Your task to perform on an android device: Do I have any events this weekend? Image 0: 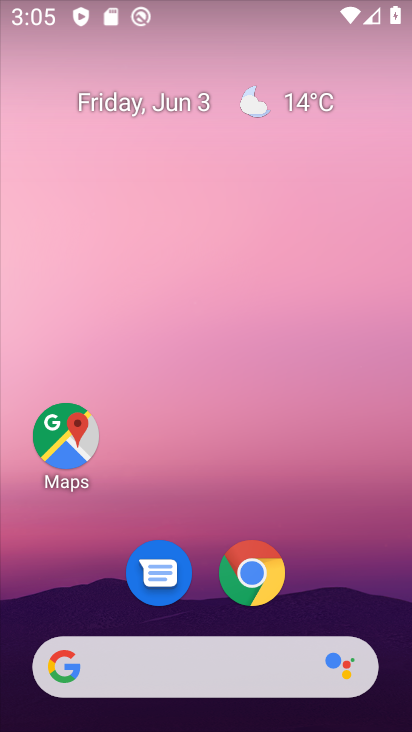
Step 0: drag from (249, 673) to (268, 26)
Your task to perform on an android device: Do I have any events this weekend? Image 1: 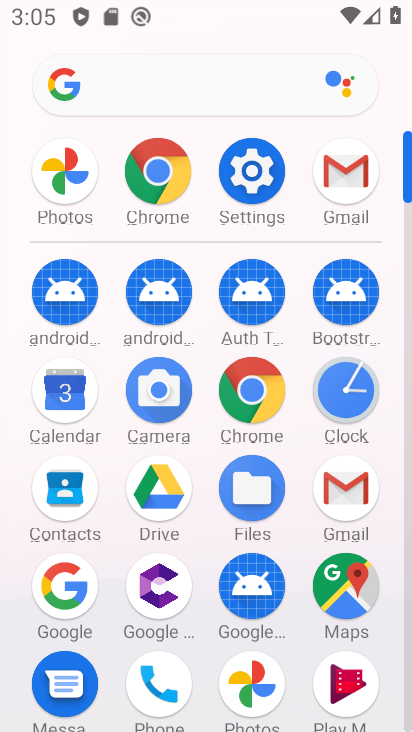
Step 1: click (71, 396)
Your task to perform on an android device: Do I have any events this weekend? Image 2: 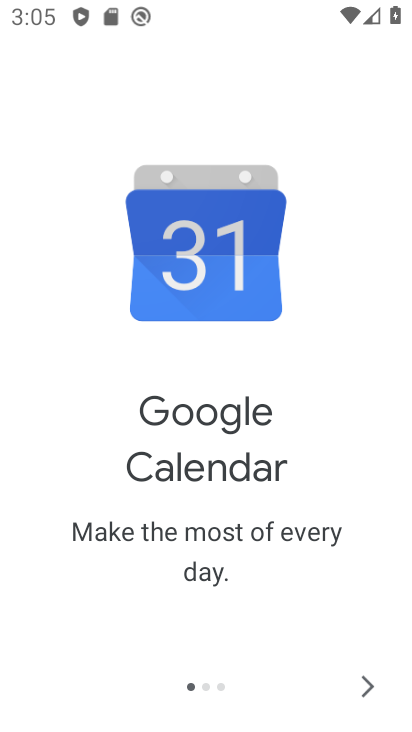
Step 2: click (360, 681)
Your task to perform on an android device: Do I have any events this weekend? Image 3: 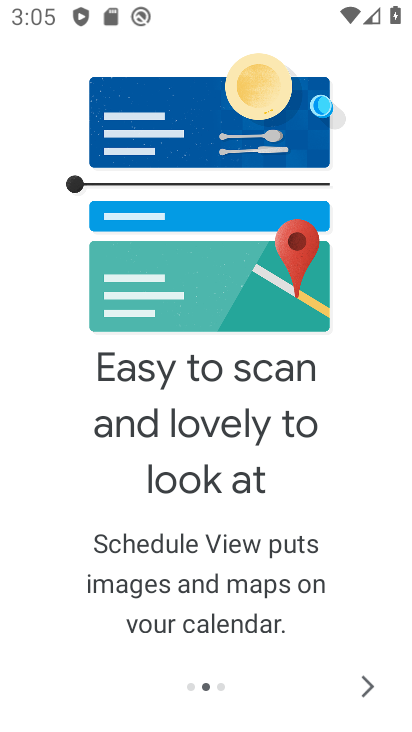
Step 3: click (360, 681)
Your task to perform on an android device: Do I have any events this weekend? Image 4: 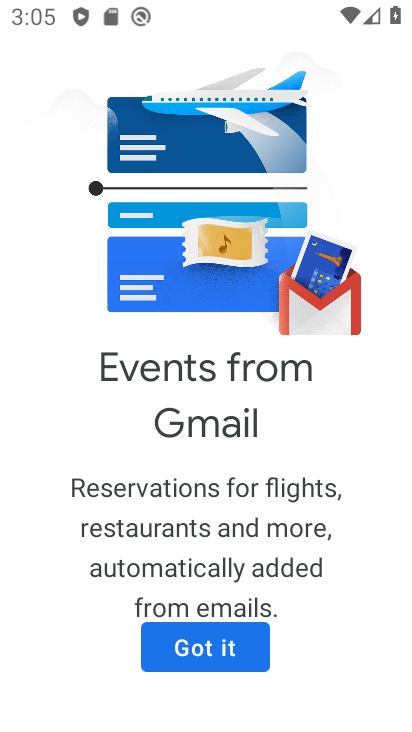
Step 4: click (243, 657)
Your task to perform on an android device: Do I have any events this weekend? Image 5: 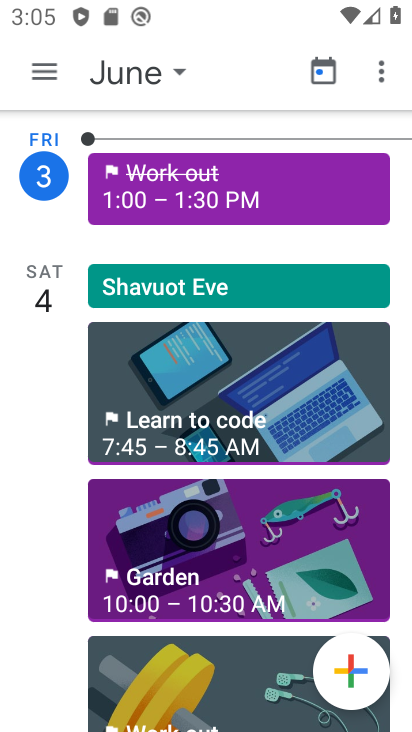
Step 5: click (188, 79)
Your task to perform on an android device: Do I have any events this weekend? Image 6: 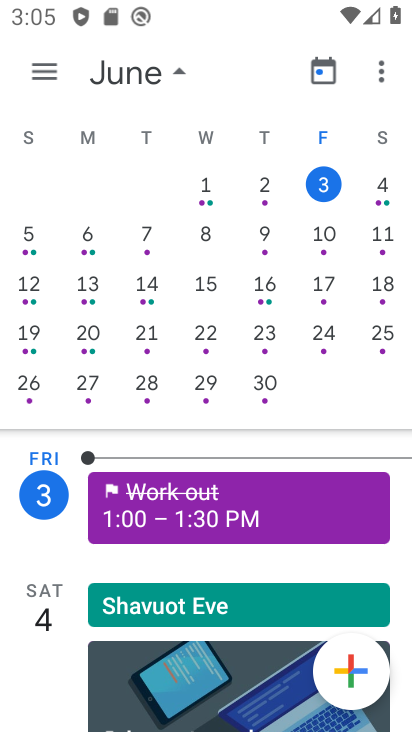
Step 6: drag from (374, 305) to (336, 348)
Your task to perform on an android device: Do I have any events this weekend? Image 7: 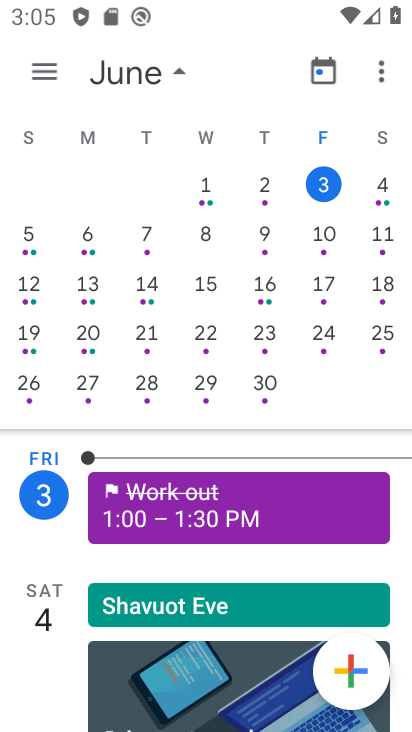
Step 7: click (384, 197)
Your task to perform on an android device: Do I have any events this weekend? Image 8: 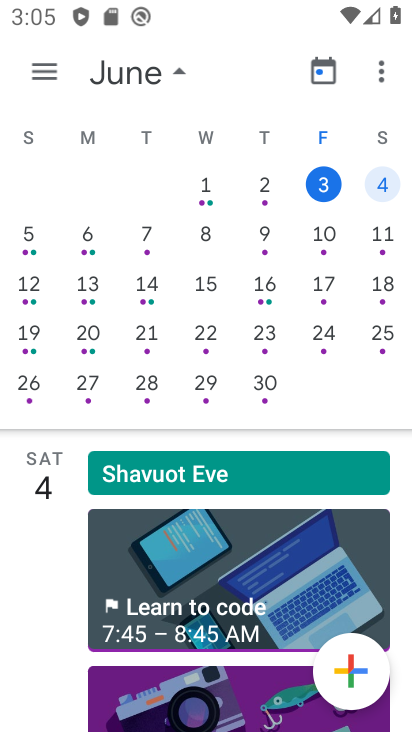
Step 8: task complete